Your task to perform on an android device: Open calendar and show me the third week of next month Image 0: 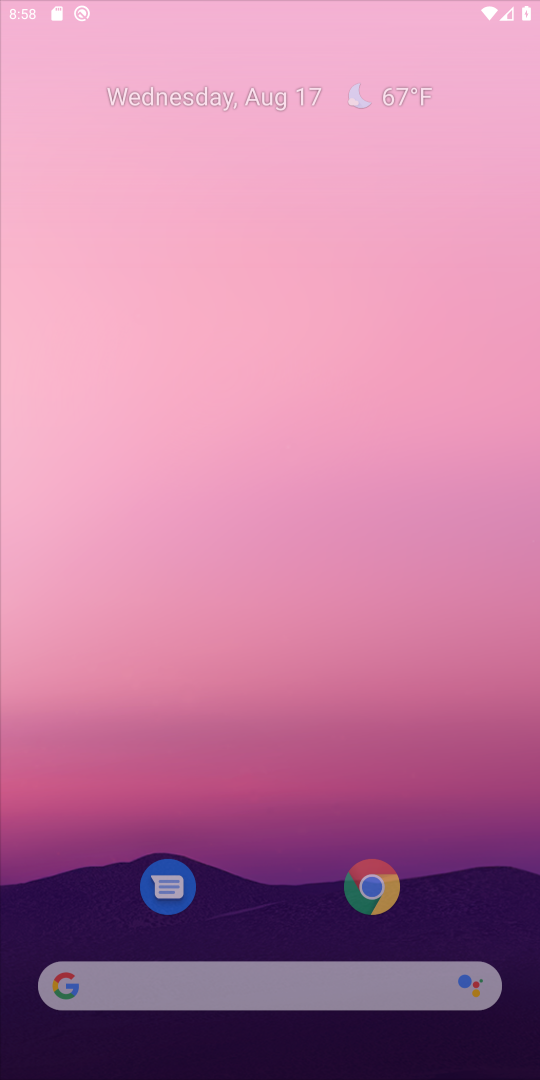
Step 0: press home button
Your task to perform on an android device: Open calendar and show me the third week of next month Image 1: 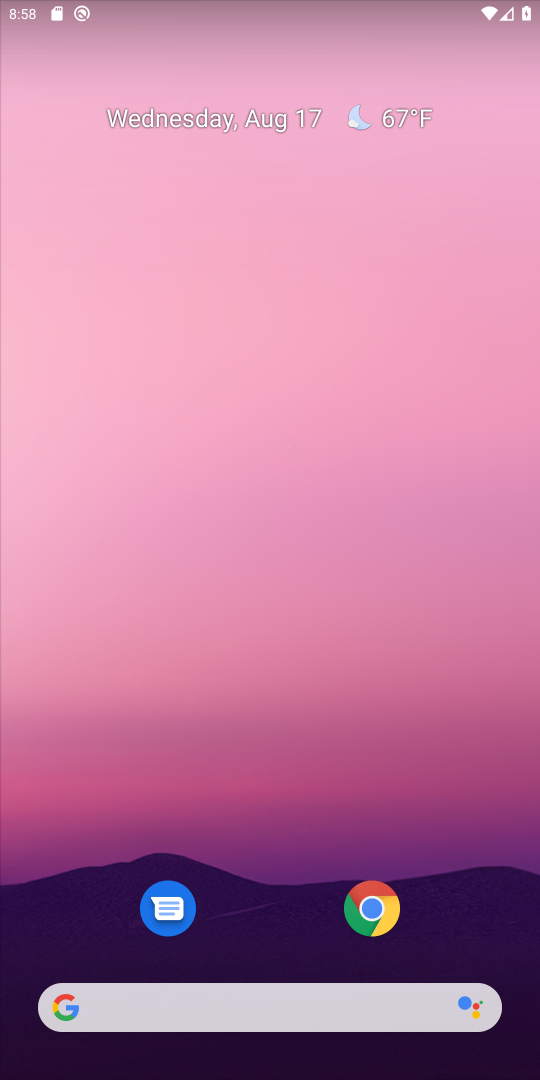
Step 1: drag from (253, 896) to (313, 65)
Your task to perform on an android device: Open calendar and show me the third week of next month Image 2: 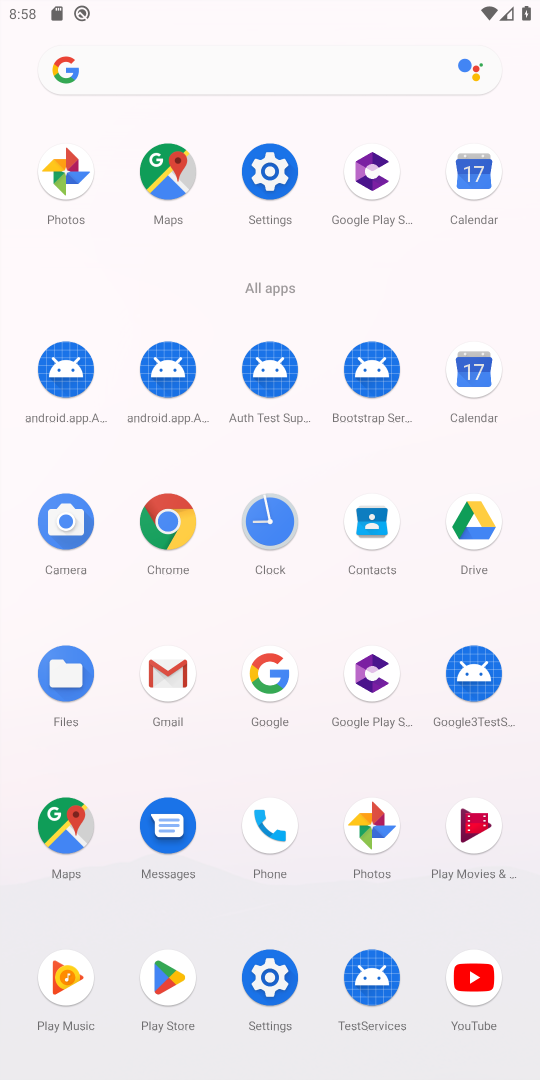
Step 2: click (474, 371)
Your task to perform on an android device: Open calendar and show me the third week of next month Image 3: 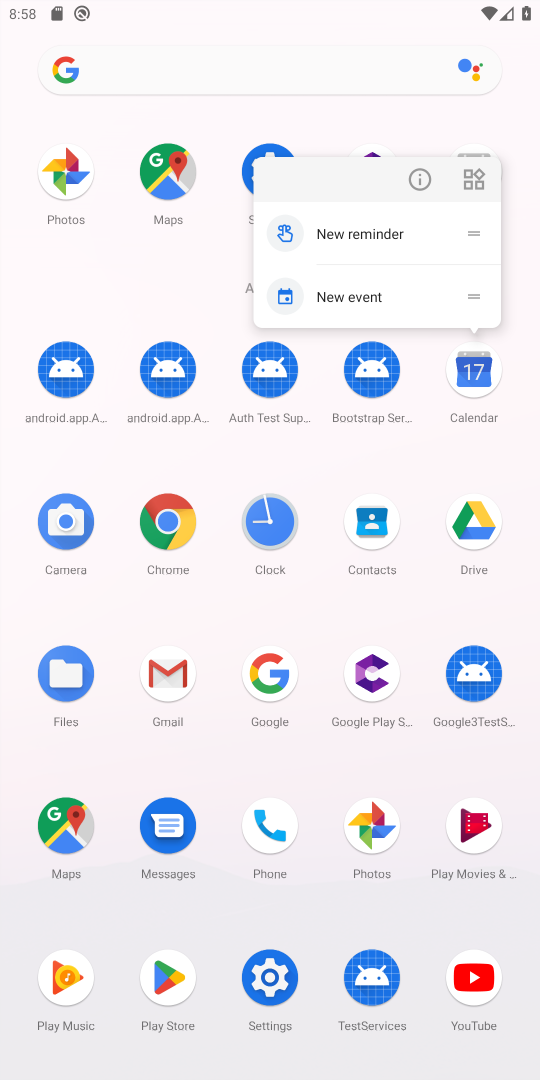
Step 3: click (476, 372)
Your task to perform on an android device: Open calendar and show me the third week of next month Image 4: 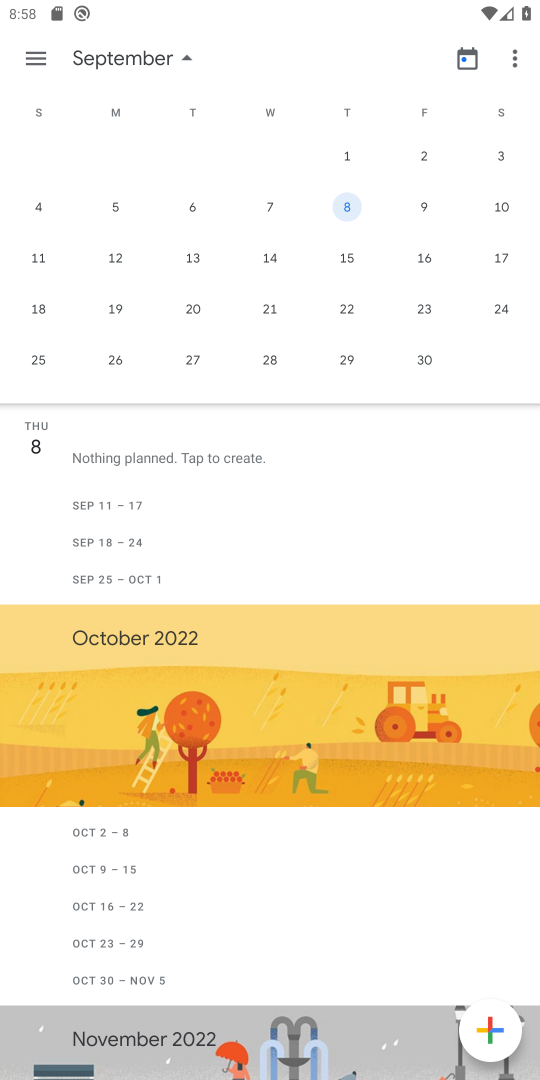
Step 4: drag from (464, 243) to (512, 760)
Your task to perform on an android device: Open calendar and show me the third week of next month Image 5: 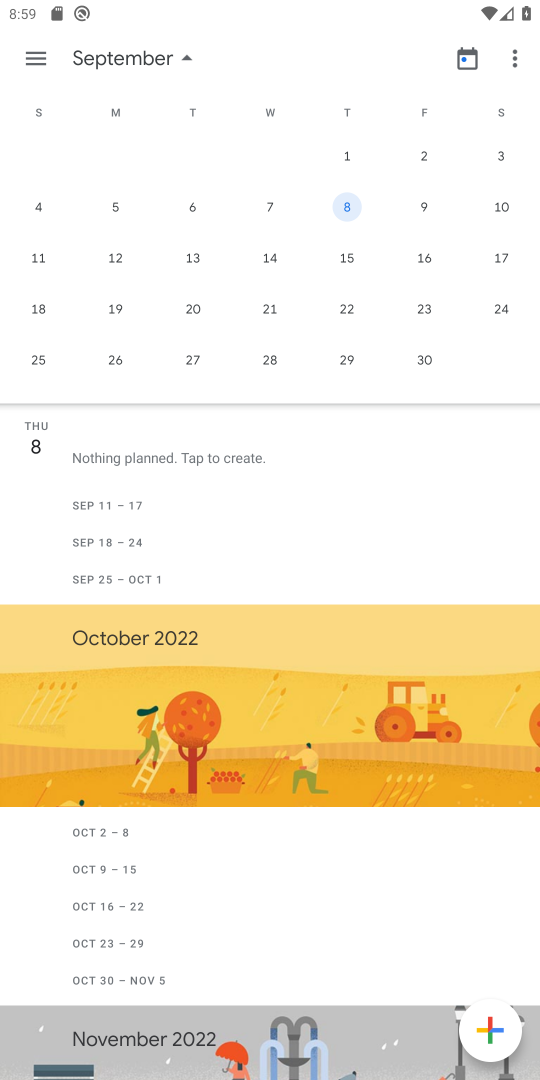
Step 5: click (273, 307)
Your task to perform on an android device: Open calendar and show me the third week of next month Image 6: 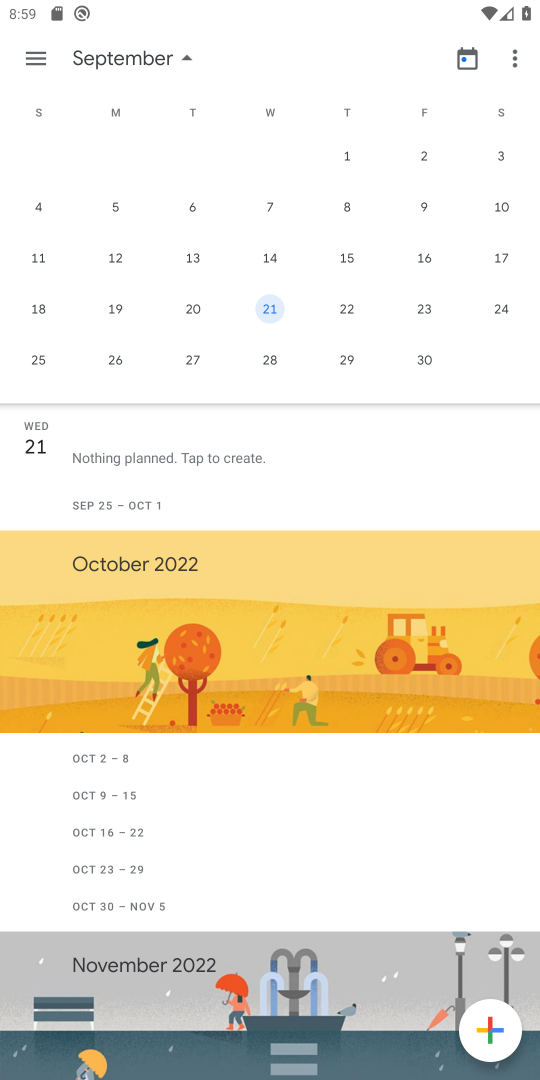
Step 6: task complete